Your task to perform on an android device: change notification settings in the gmail app Image 0: 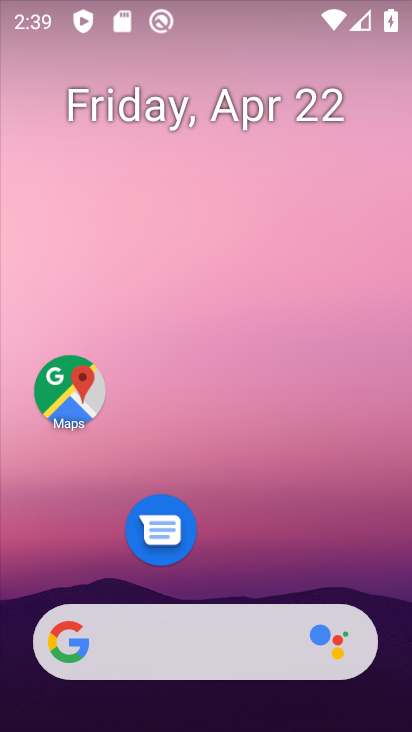
Step 0: drag from (253, 492) to (215, 39)
Your task to perform on an android device: change notification settings in the gmail app Image 1: 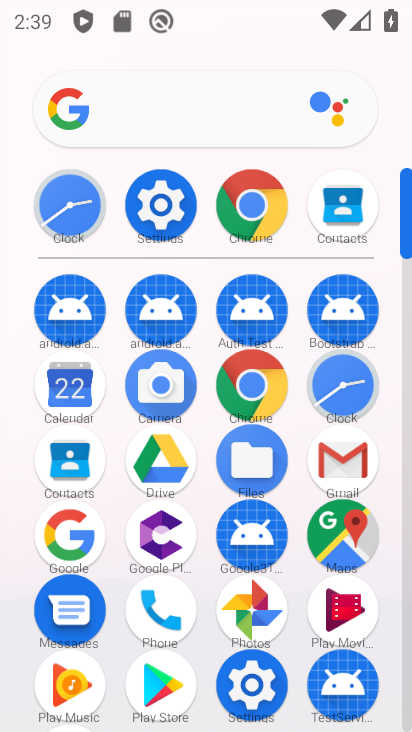
Step 1: click (349, 460)
Your task to perform on an android device: change notification settings in the gmail app Image 2: 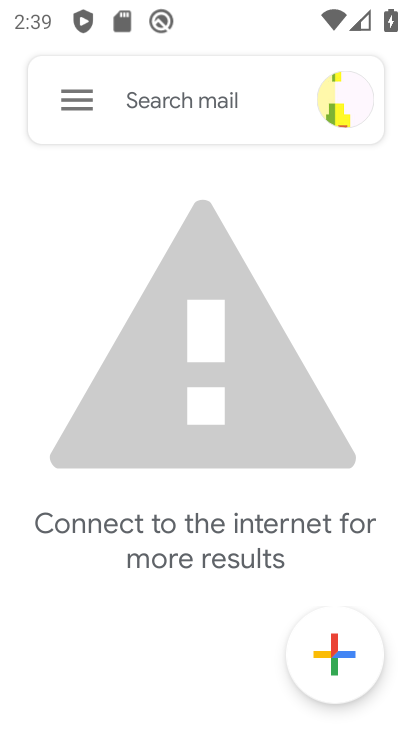
Step 2: click (77, 82)
Your task to perform on an android device: change notification settings in the gmail app Image 3: 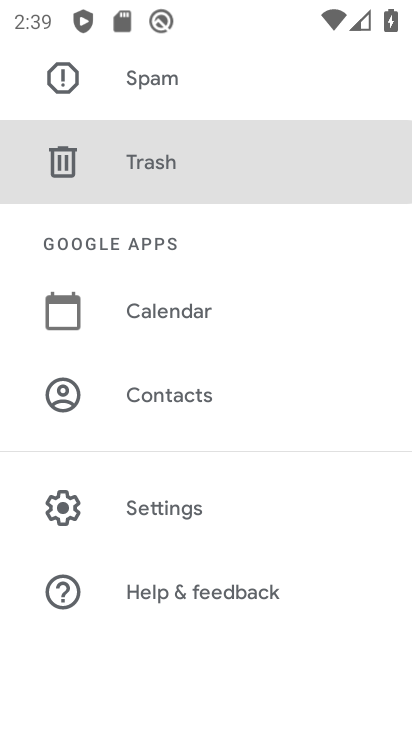
Step 3: click (178, 504)
Your task to perform on an android device: change notification settings in the gmail app Image 4: 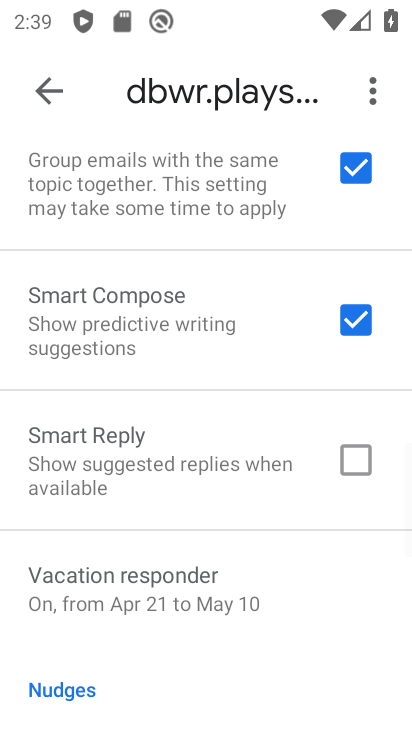
Step 4: drag from (156, 232) to (194, 720)
Your task to perform on an android device: change notification settings in the gmail app Image 5: 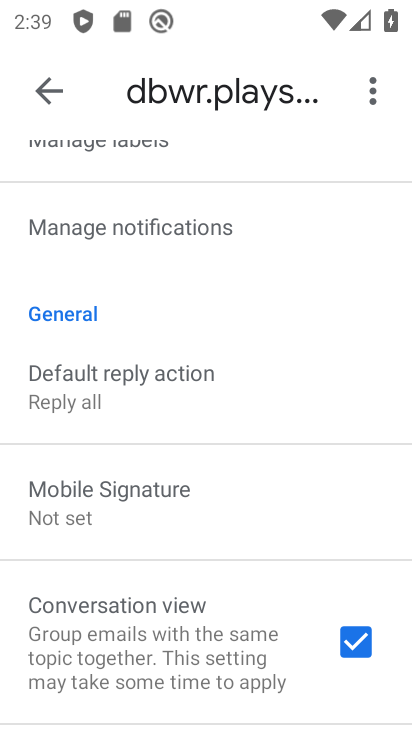
Step 5: drag from (122, 258) to (133, 638)
Your task to perform on an android device: change notification settings in the gmail app Image 6: 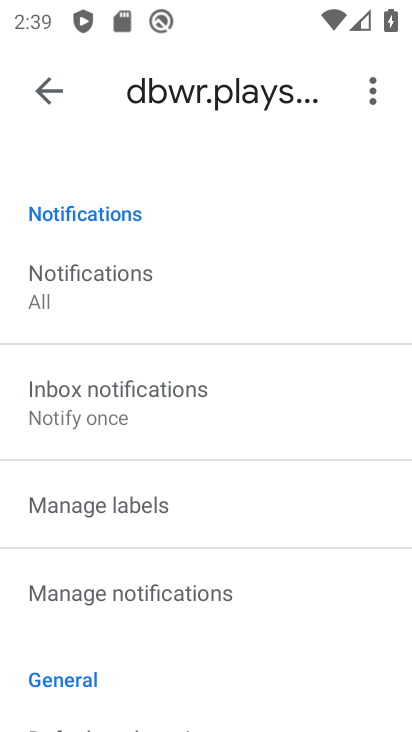
Step 6: click (50, 94)
Your task to perform on an android device: change notification settings in the gmail app Image 7: 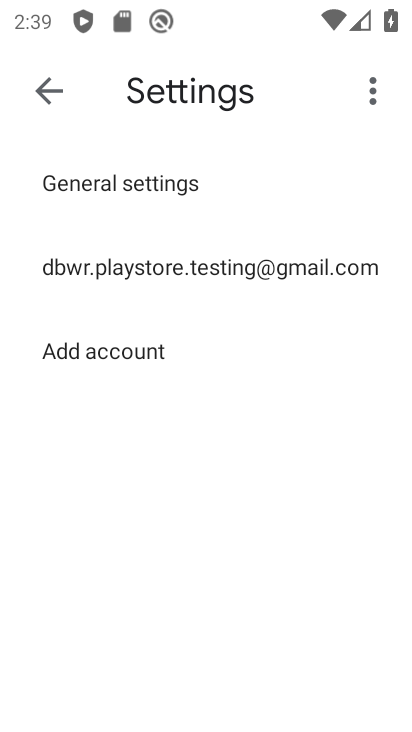
Step 7: click (96, 189)
Your task to perform on an android device: change notification settings in the gmail app Image 8: 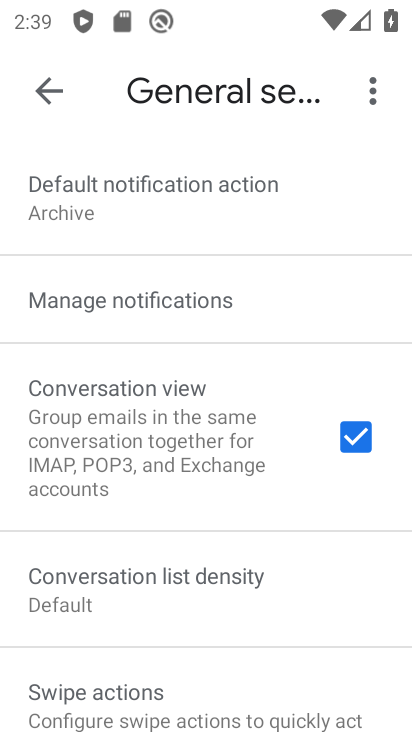
Step 8: click (113, 306)
Your task to perform on an android device: change notification settings in the gmail app Image 9: 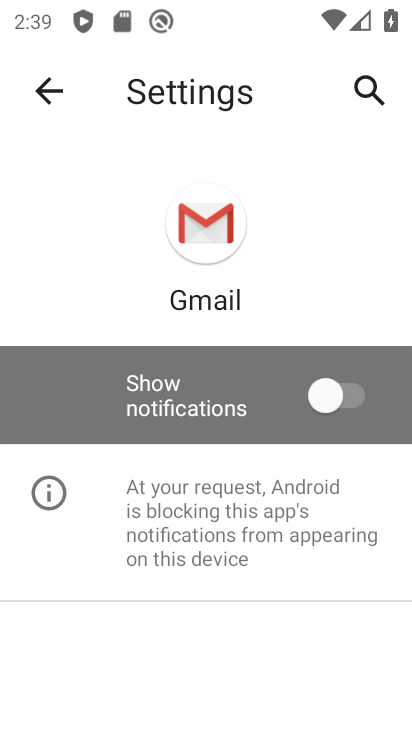
Step 9: click (326, 412)
Your task to perform on an android device: change notification settings in the gmail app Image 10: 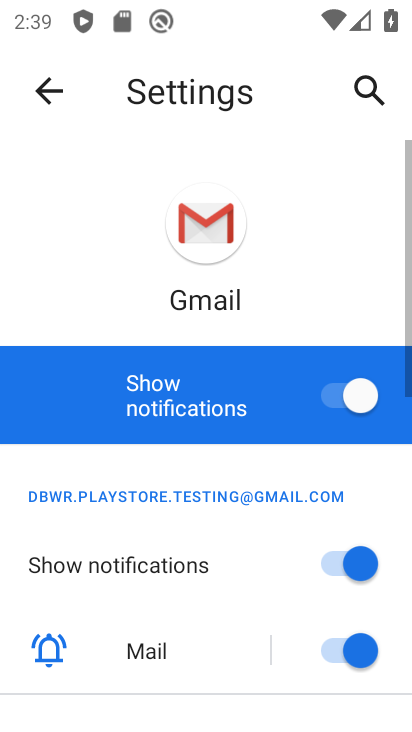
Step 10: task complete